Your task to perform on an android device: Open Reddit.com Image 0: 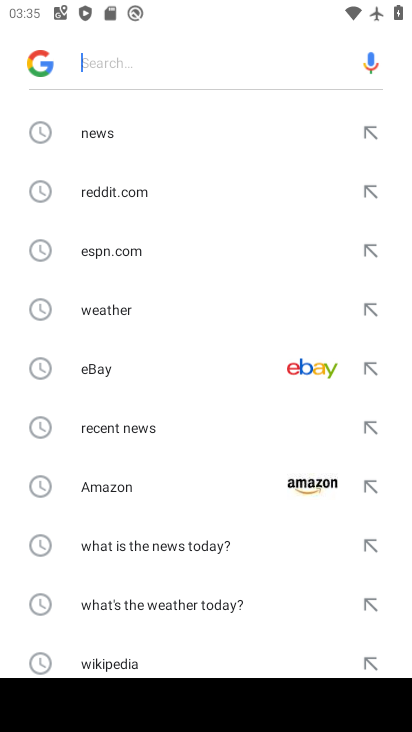
Step 0: press home button
Your task to perform on an android device: Open Reddit.com Image 1: 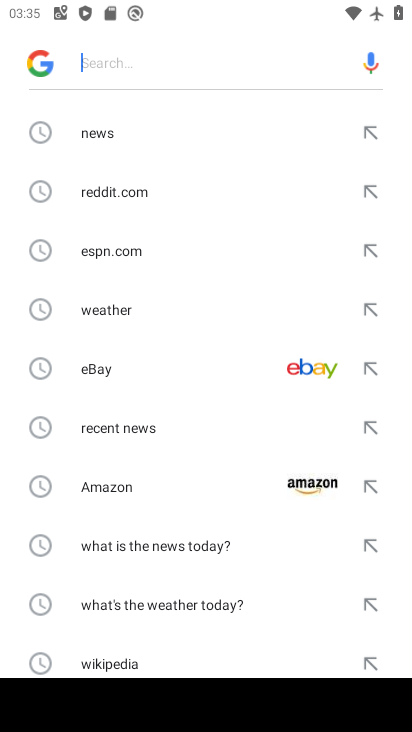
Step 1: click (180, 404)
Your task to perform on an android device: Open Reddit.com Image 2: 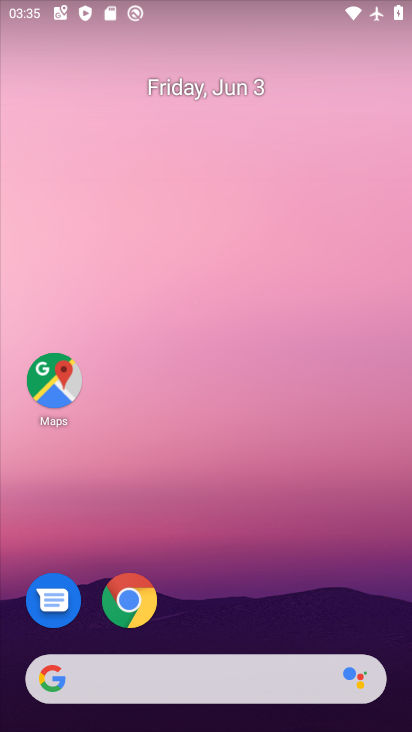
Step 2: click (127, 601)
Your task to perform on an android device: Open Reddit.com Image 3: 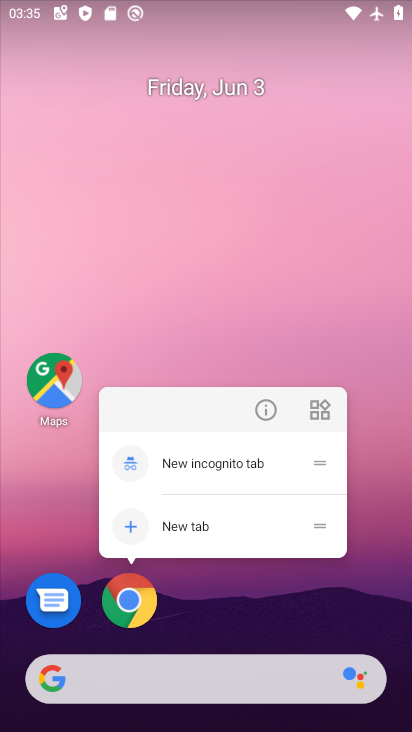
Step 3: click (128, 591)
Your task to perform on an android device: Open Reddit.com Image 4: 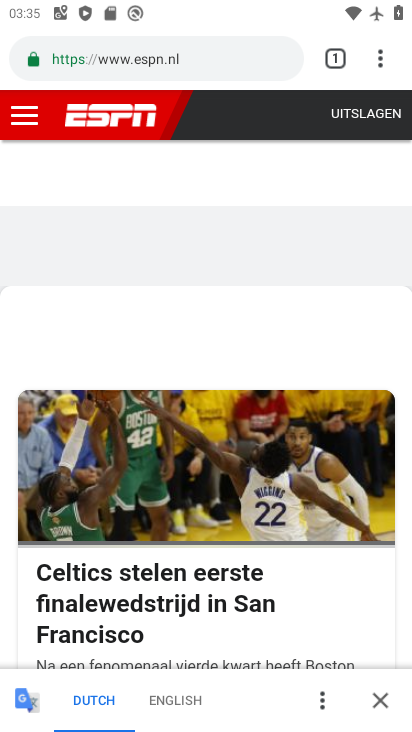
Step 4: click (201, 59)
Your task to perform on an android device: Open Reddit.com Image 5: 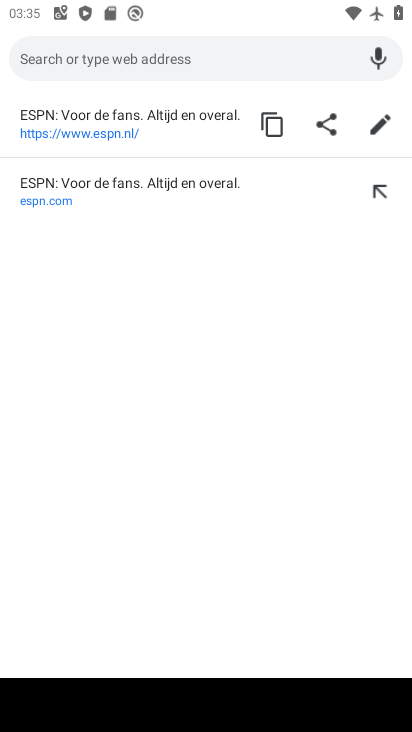
Step 5: type "Reddit.com"
Your task to perform on an android device: Open Reddit.com Image 6: 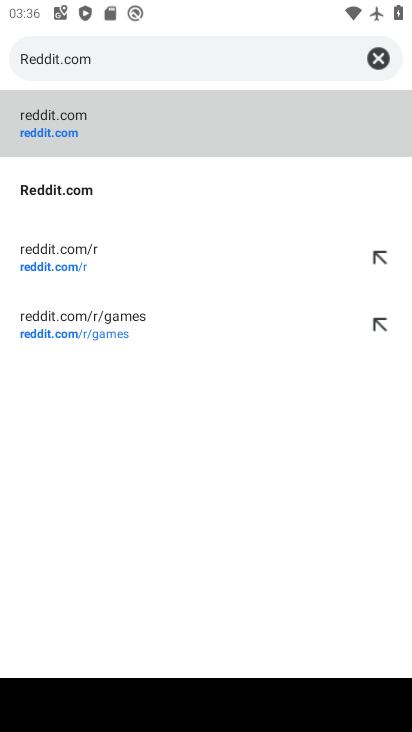
Step 6: click (59, 143)
Your task to perform on an android device: Open Reddit.com Image 7: 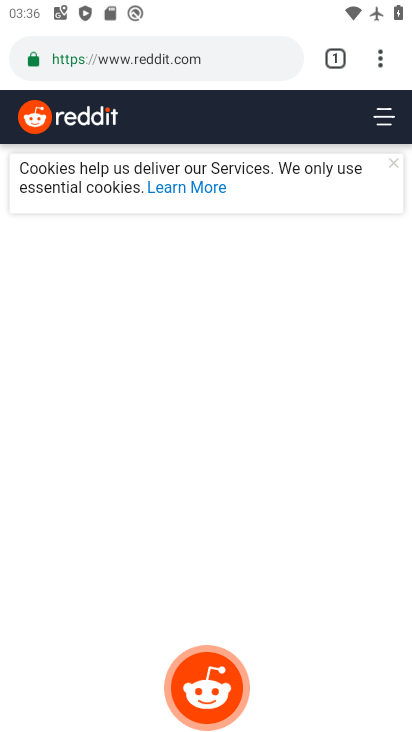
Step 7: task complete